Your task to perform on an android device: uninstall "WhatsApp Messenger" Image 0: 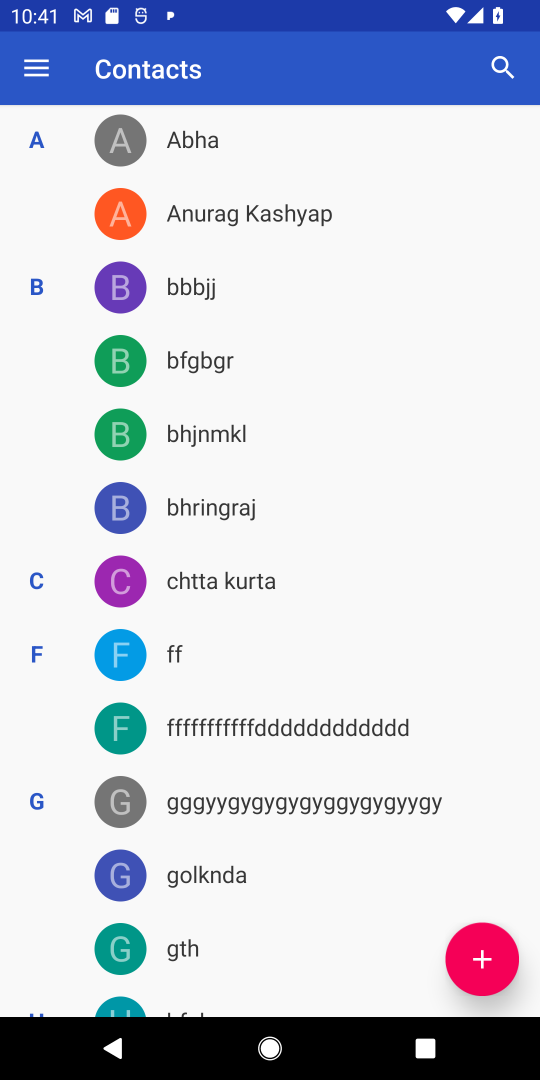
Step 0: press home button
Your task to perform on an android device: uninstall "WhatsApp Messenger" Image 1: 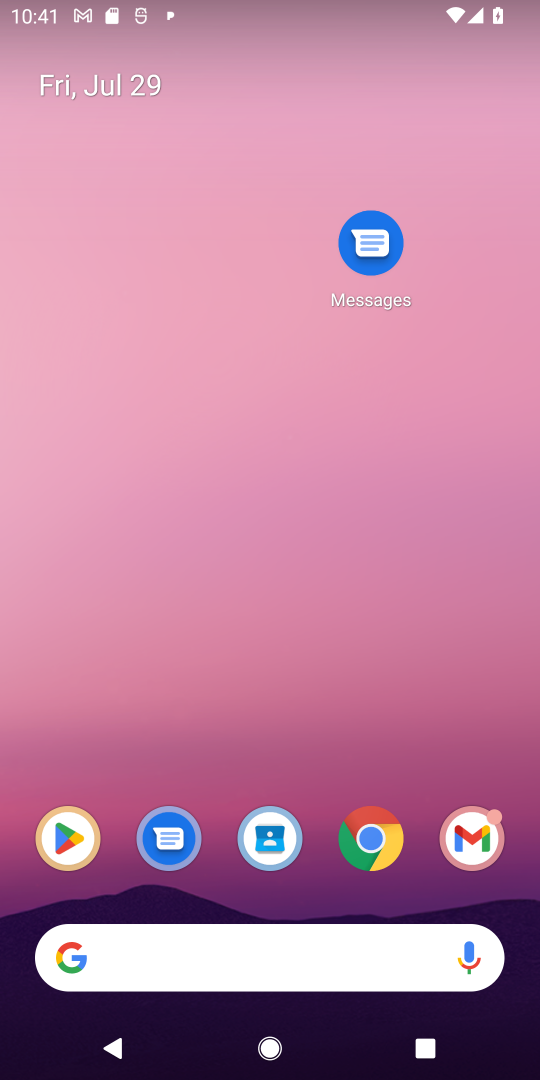
Step 1: drag from (171, 802) to (146, 8)
Your task to perform on an android device: uninstall "WhatsApp Messenger" Image 2: 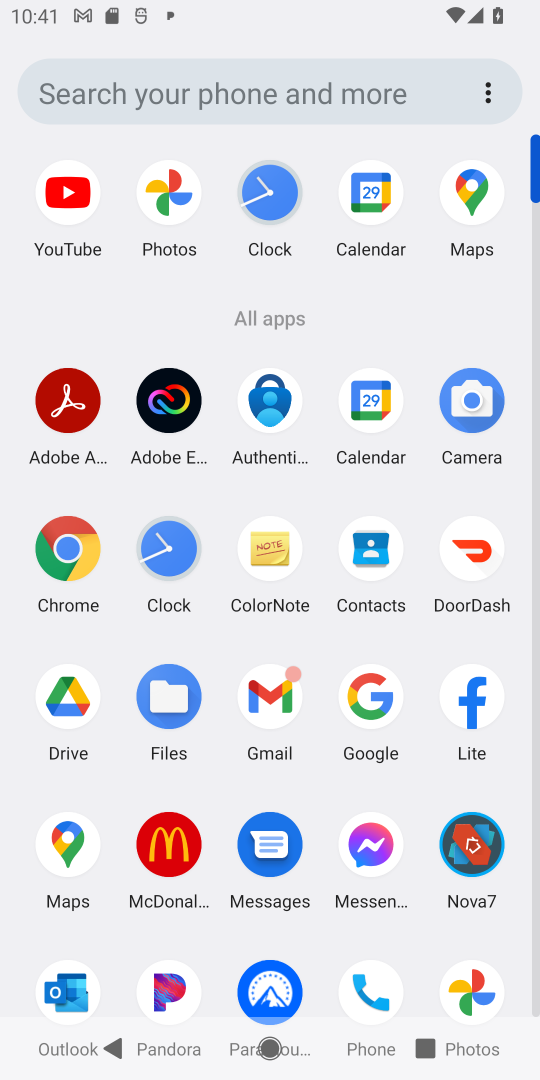
Step 2: drag from (225, 685) to (220, 320)
Your task to perform on an android device: uninstall "WhatsApp Messenger" Image 3: 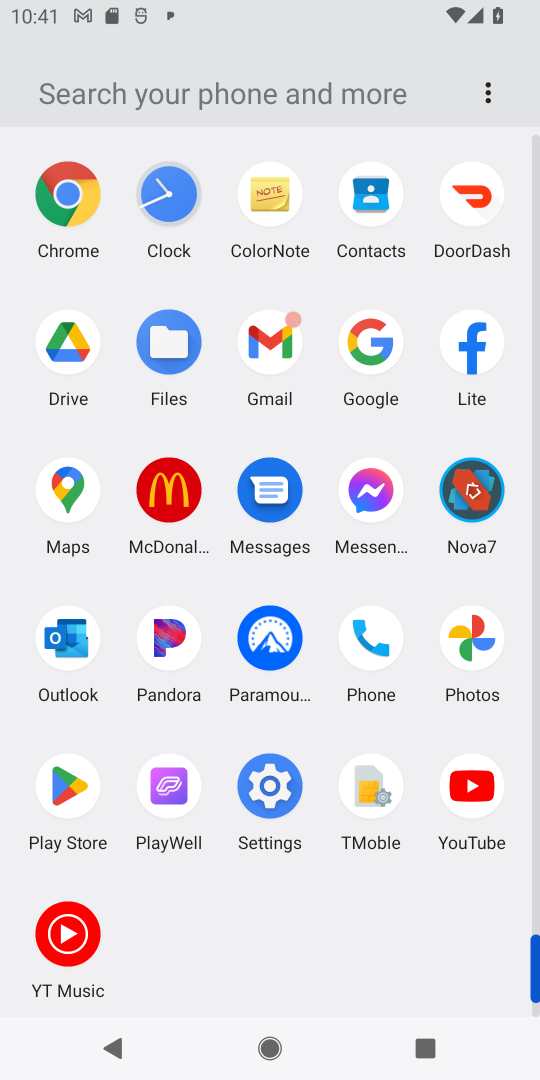
Step 3: click (70, 819)
Your task to perform on an android device: uninstall "WhatsApp Messenger" Image 4: 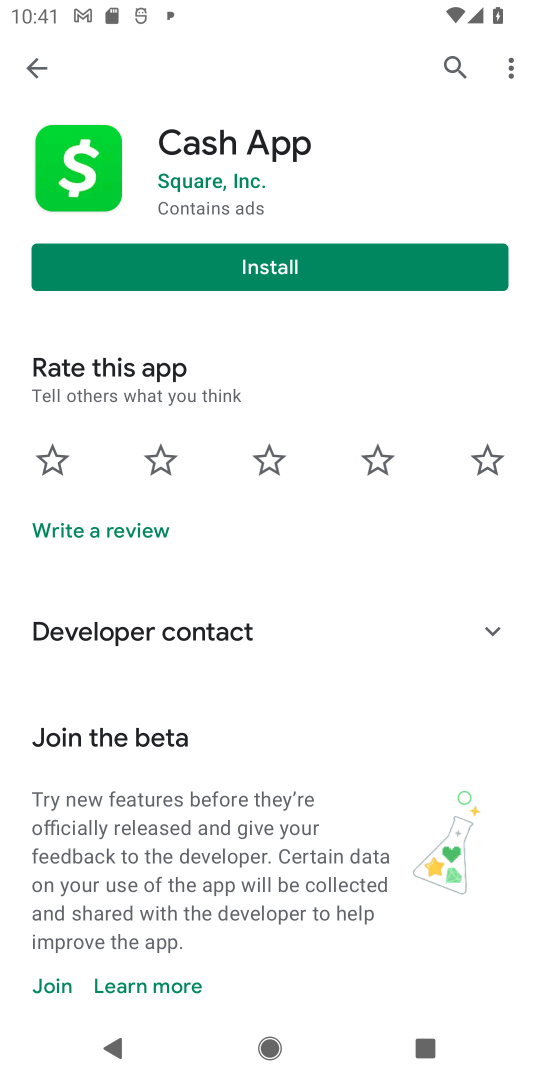
Step 4: click (29, 65)
Your task to perform on an android device: uninstall "WhatsApp Messenger" Image 5: 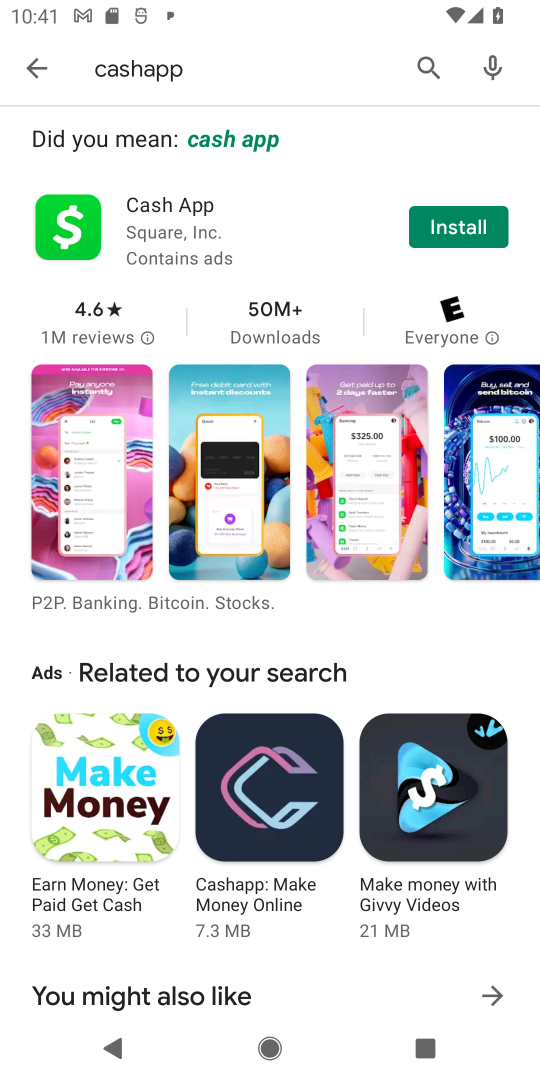
Step 5: click (183, 75)
Your task to perform on an android device: uninstall "WhatsApp Messenger" Image 6: 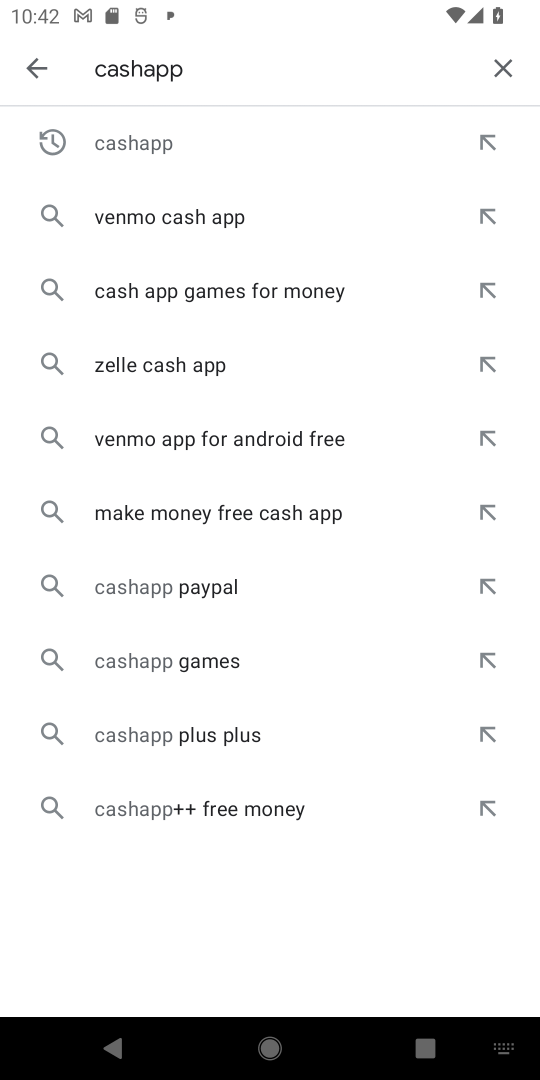
Step 6: click (499, 65)
Your task to perform on an android device: uninstall "WhatsApp Messenger" Image 7: 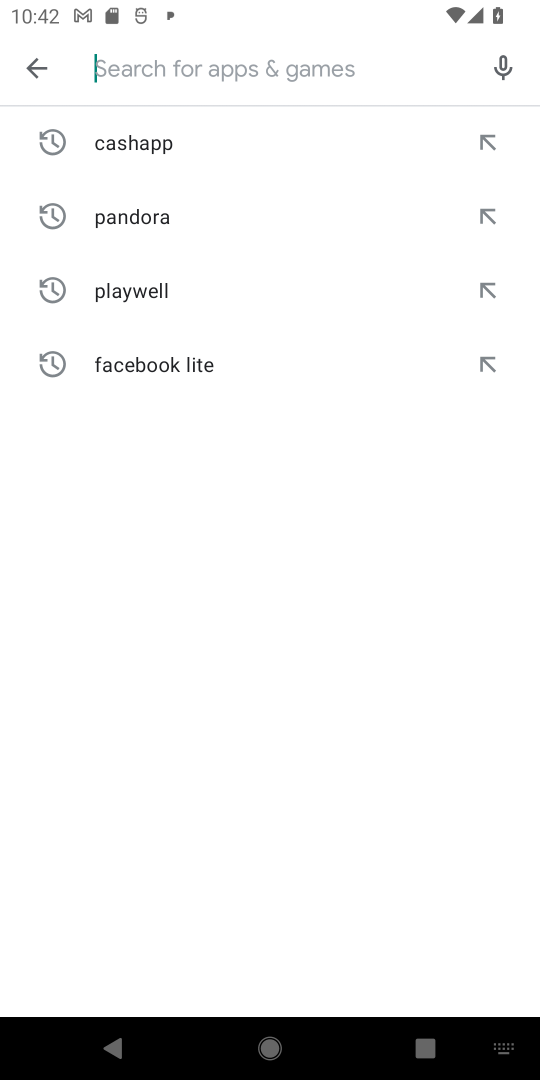
Step 7: type "whatsapp messenger"
Your task to perform on an android device: uninstall "WhatsApp Messenger" Image 8: 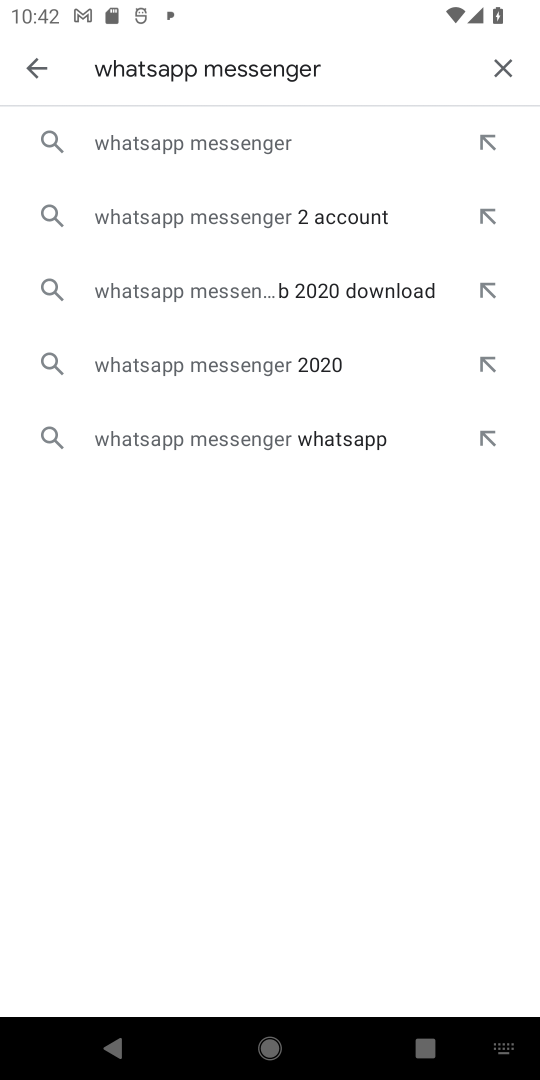
Step 8: click (202, 148)
Your task to perform on an android device: uninstall "WhatsApp Messenger" Image 9: 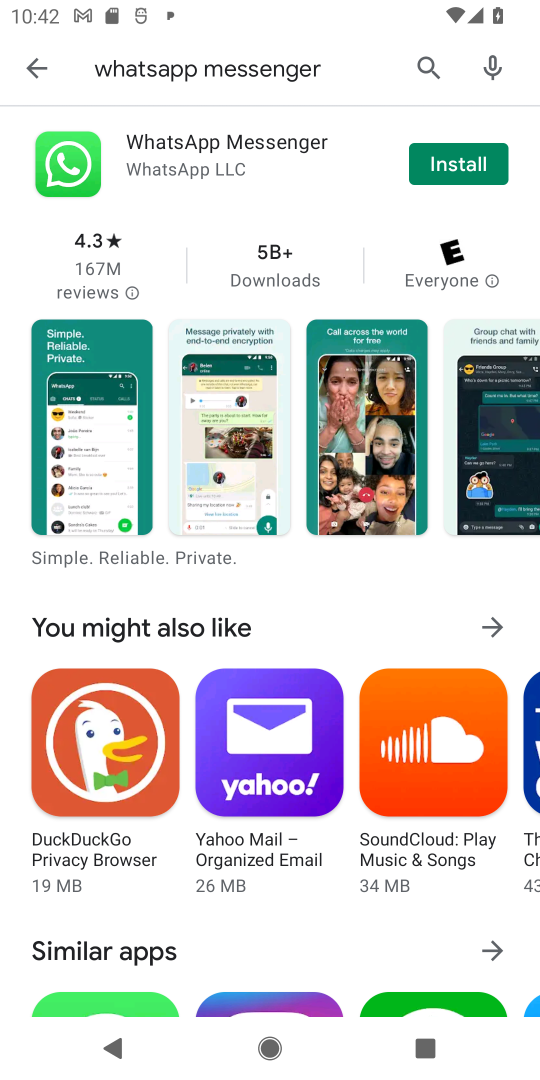
Step 9: task complete